Your task to perform on an android device: turn on wifi Image 0: 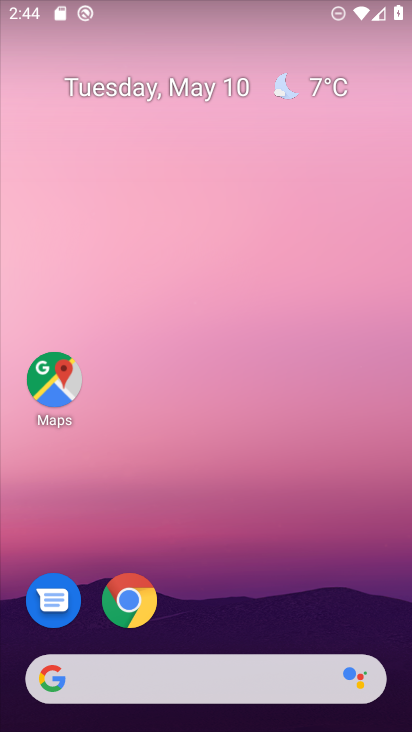
Step 0: drag from (210, 663) to (182, 223)
Your task to perform on an android device: turn on wifi Image 1: 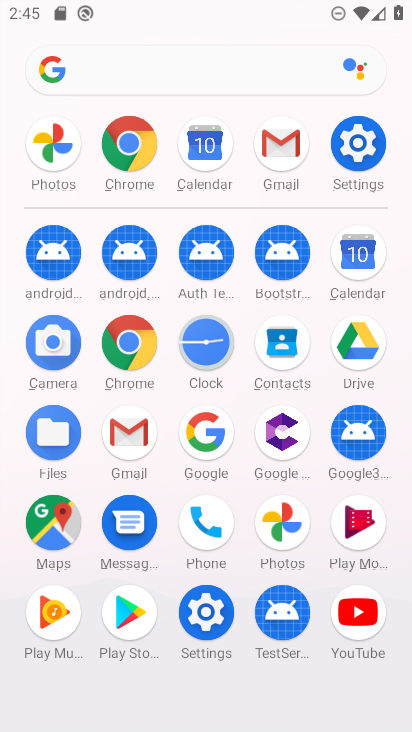
Step 1: click (364, 154)
Your task to perform on an android device: turn on wifi Image 2: 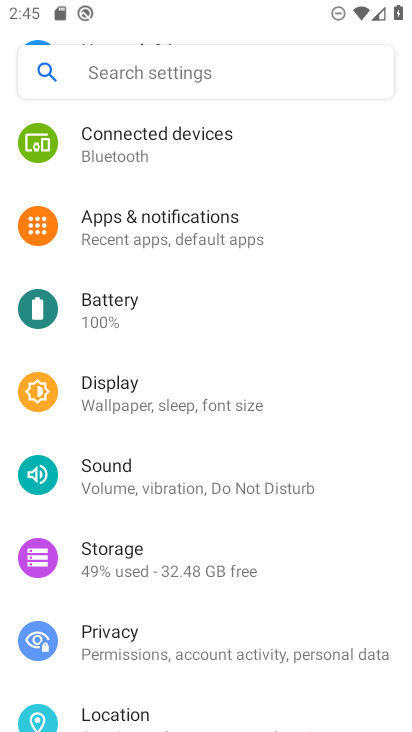
Step 2: drag from (234, 133) to (307, 611)
Your task to perform on an android device: turn on wifi Image 3: 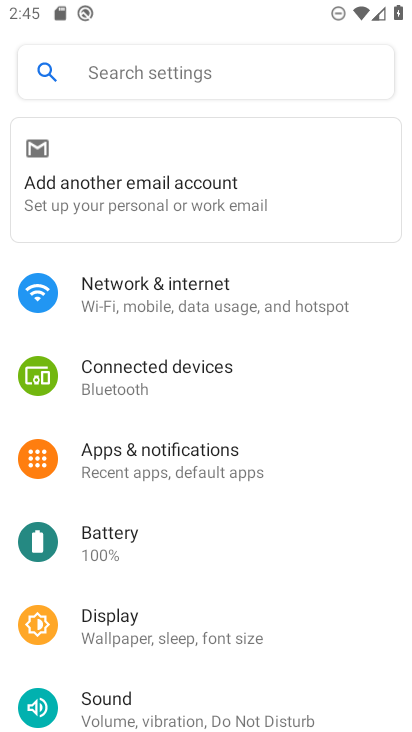
Step 3: click (194, 309)
Your task to perform on an android device: turn on wifi Image 4: 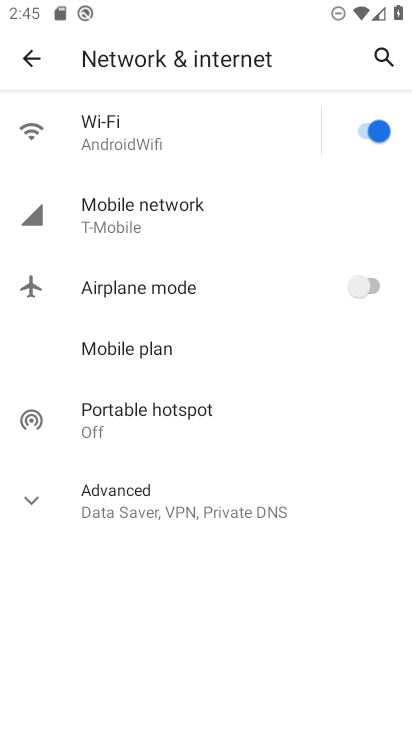
Step 4: task complete